Your task to perform on an android device: open a bookmark in the chrome app Image 0: 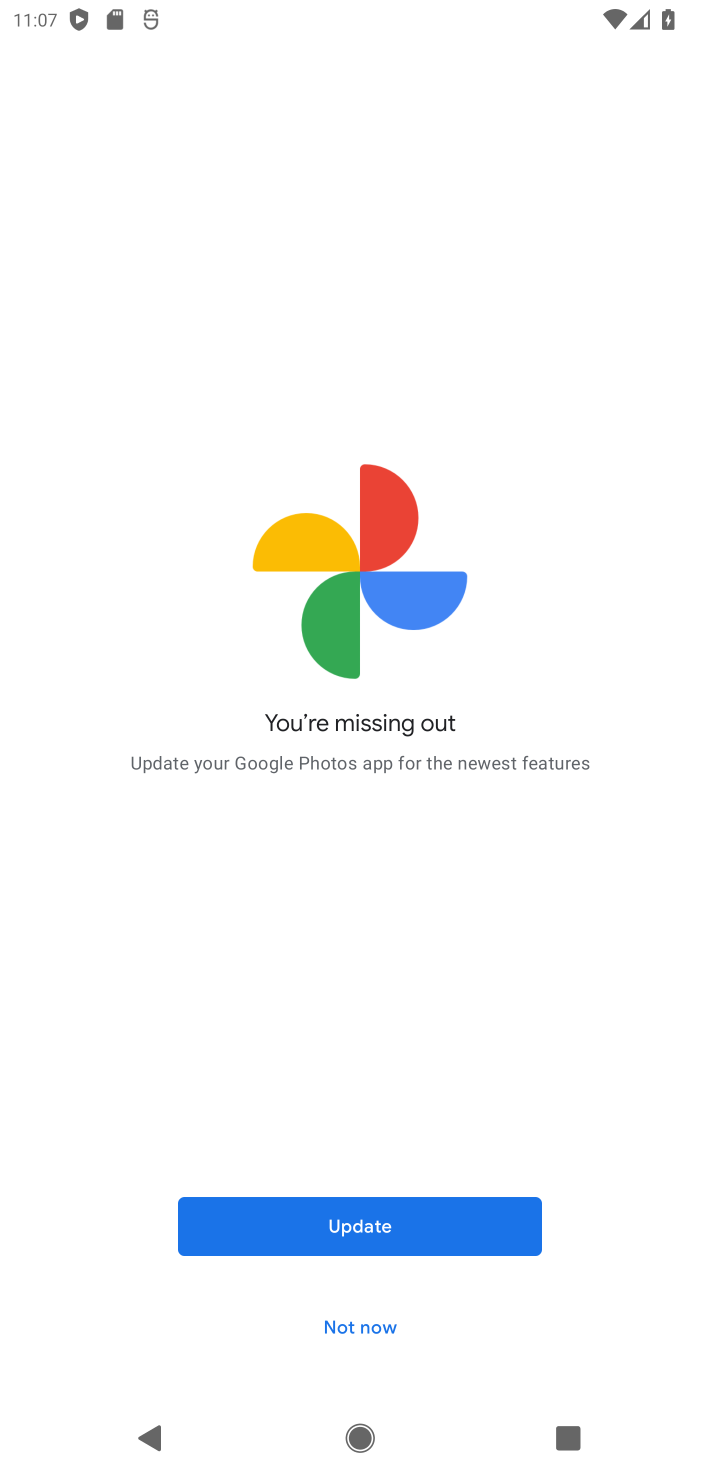
Step 0: press home button
Your task to perform on an android device: open a bookmark in the chrome app Image 1: 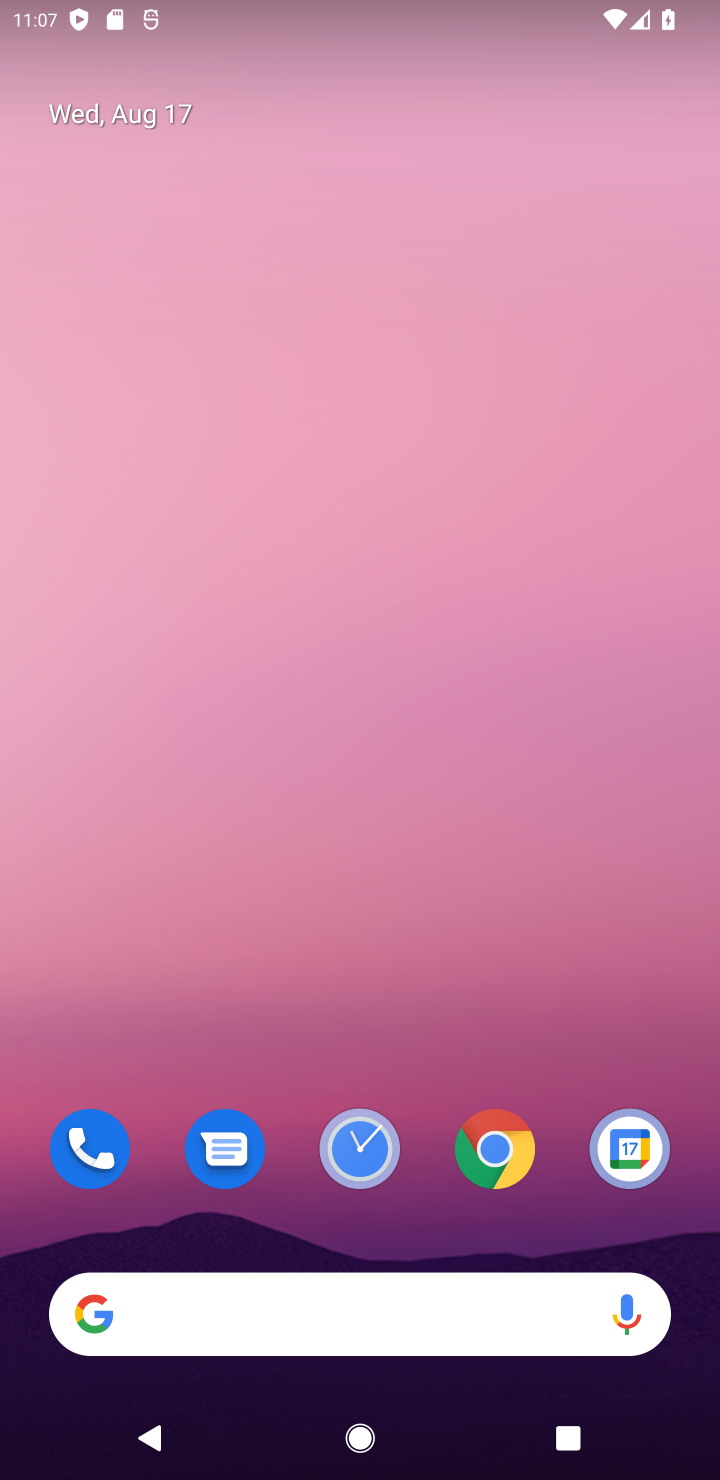
Step 1: drag from (320, 786) to (340, 224)
Your task to perform on an android device: open a bookmark in the chrome app Image 2: 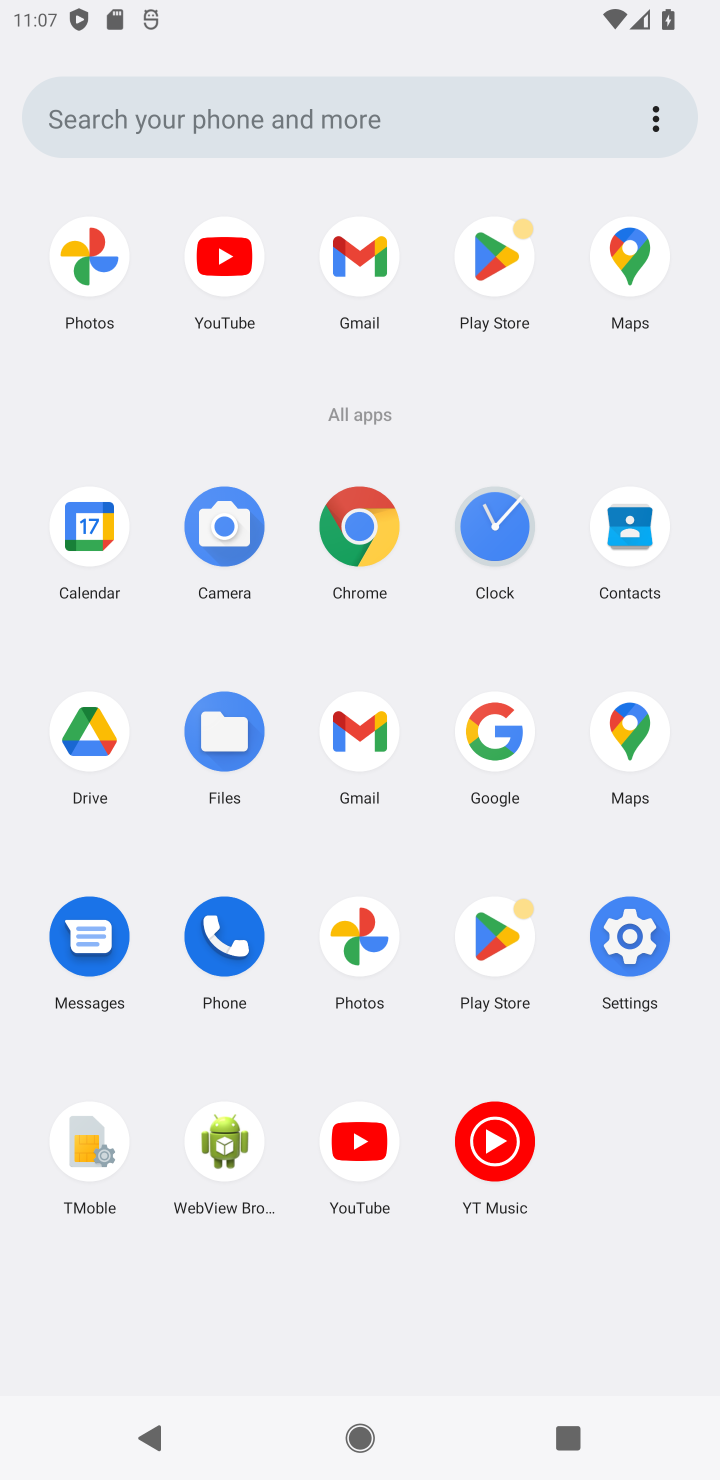
Step 2: click (372, 541)
Your task to perform on an android device: open a bookmark in the chrome app Image 3: 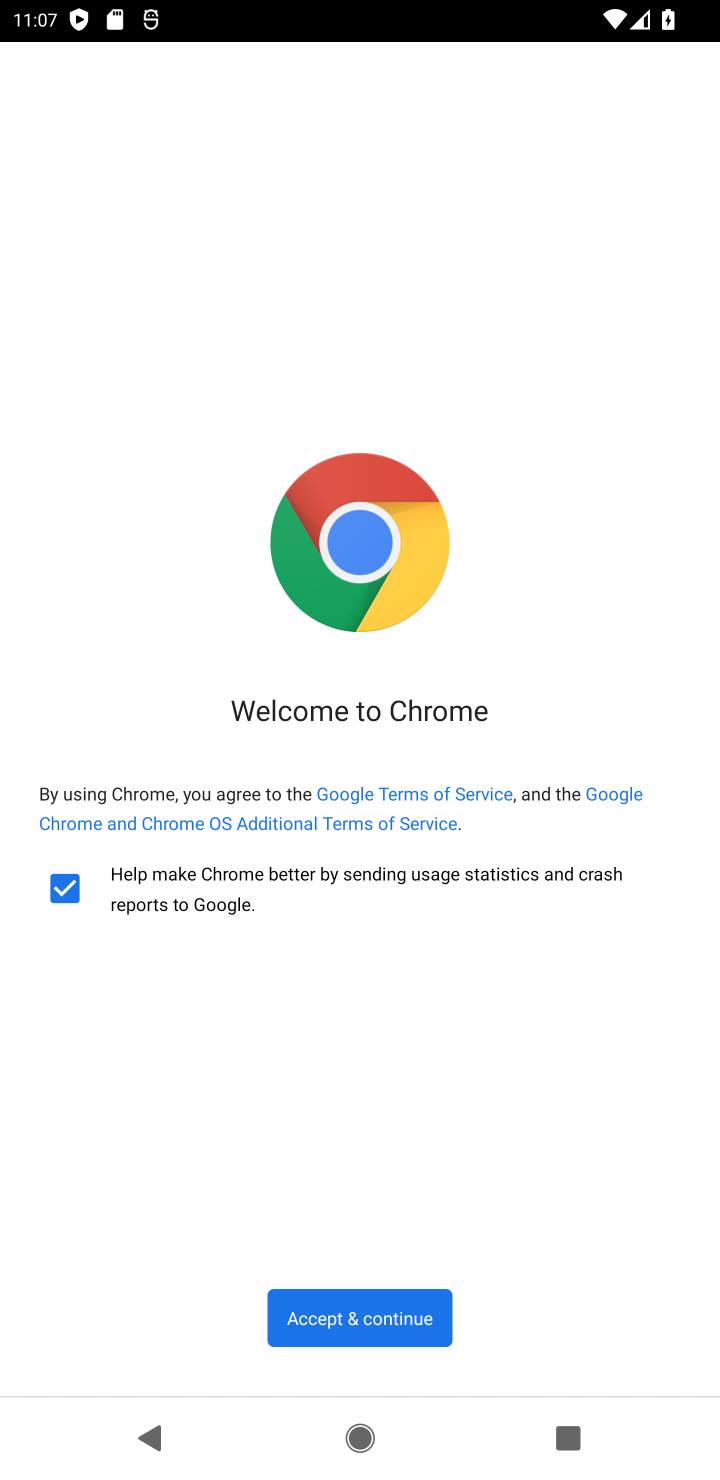
Step 3: click (386, 1319)
Your task to perform on an android device: open a bookmark in the chrome app Image 4: 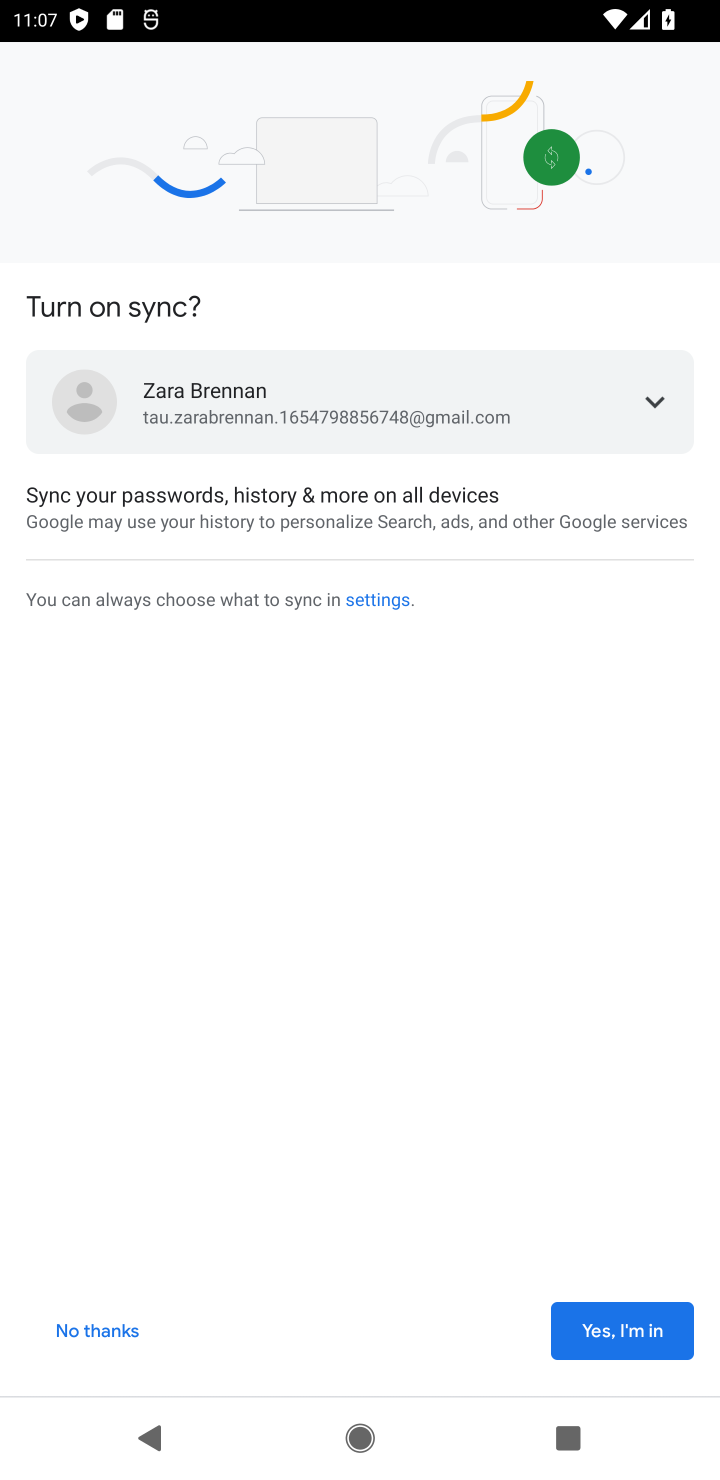
Step 4: click (91, 1340)
Your task to perform on an android device: open a bookmark in the chrome app Image 5: 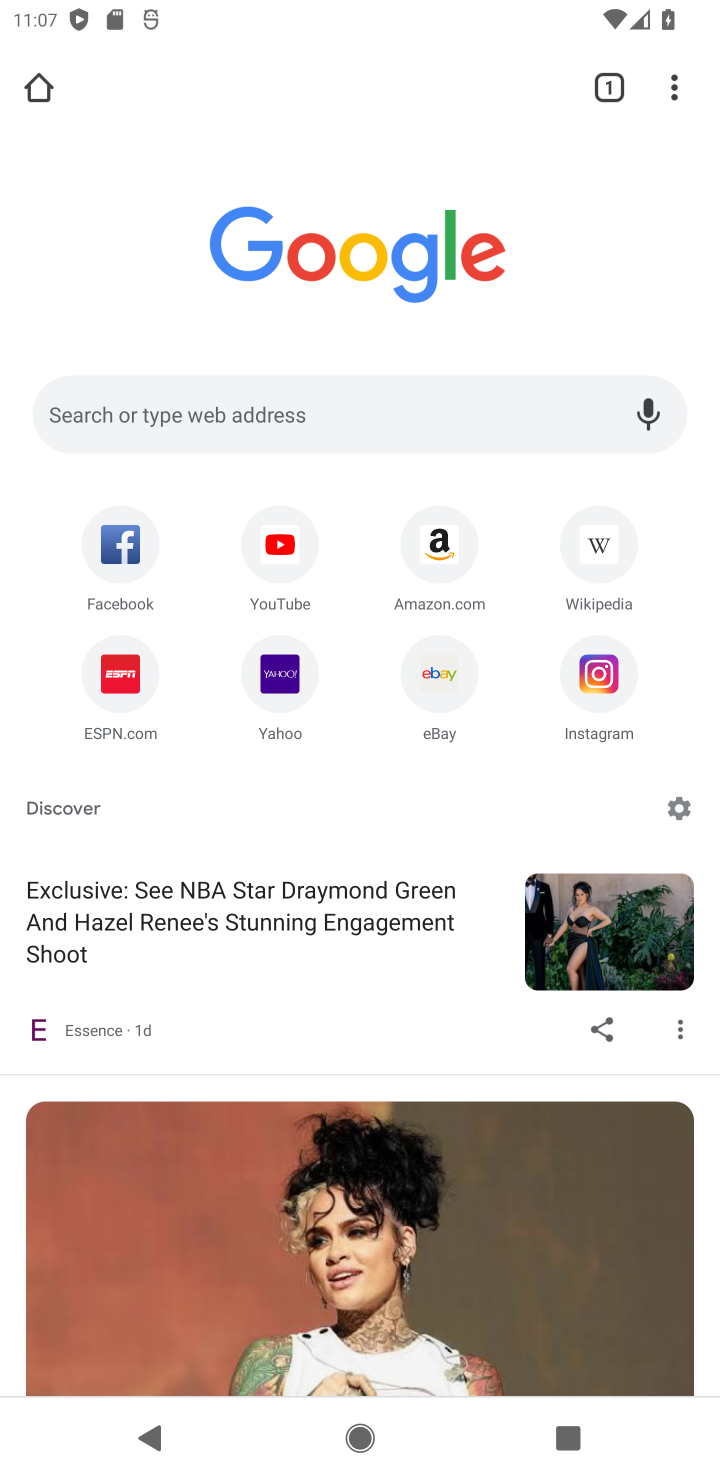
Step 5: drag from (665, 90) to (360, 495)
Your task to perform on an android device: open a bookmark in the chrome app Image 6: 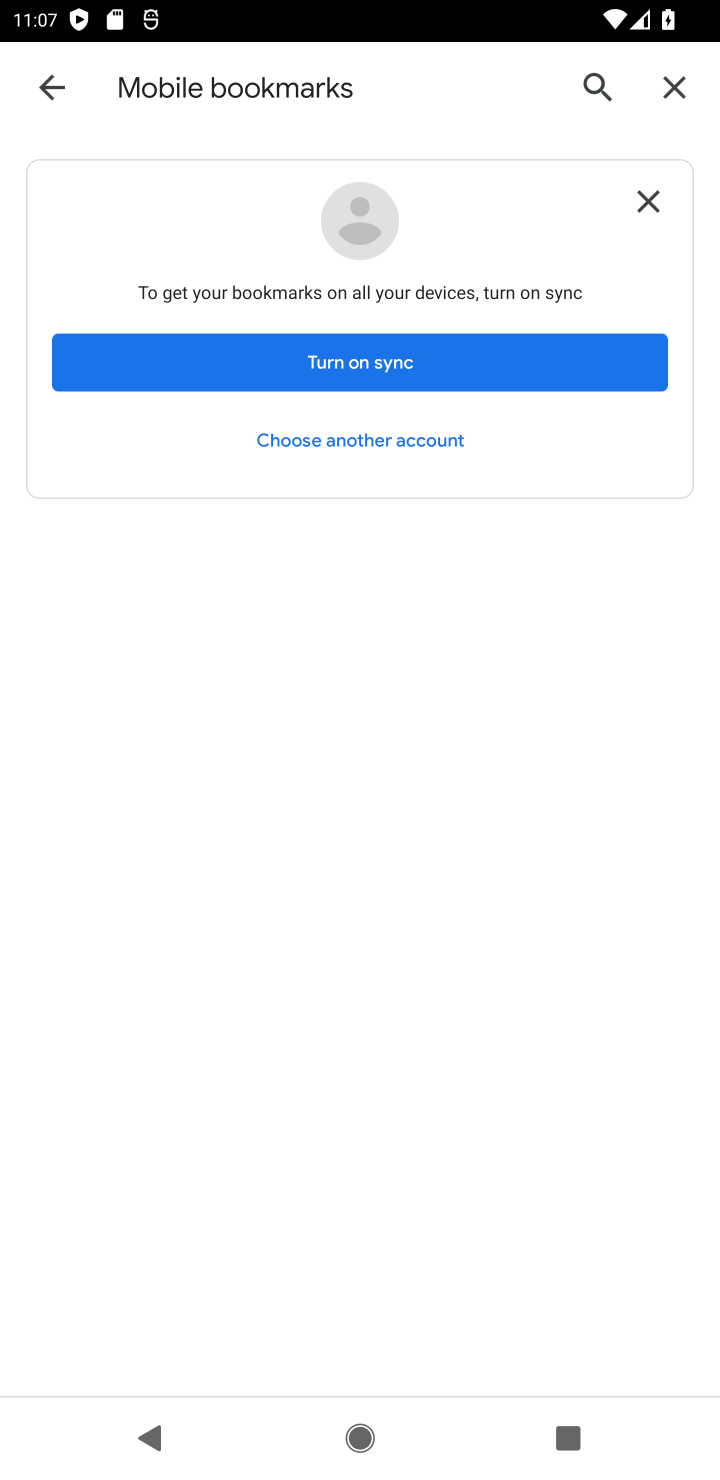
Step 6: click (282, 347)
Your task to perform on an android device: open a bookmark in the chrome app Image 7: 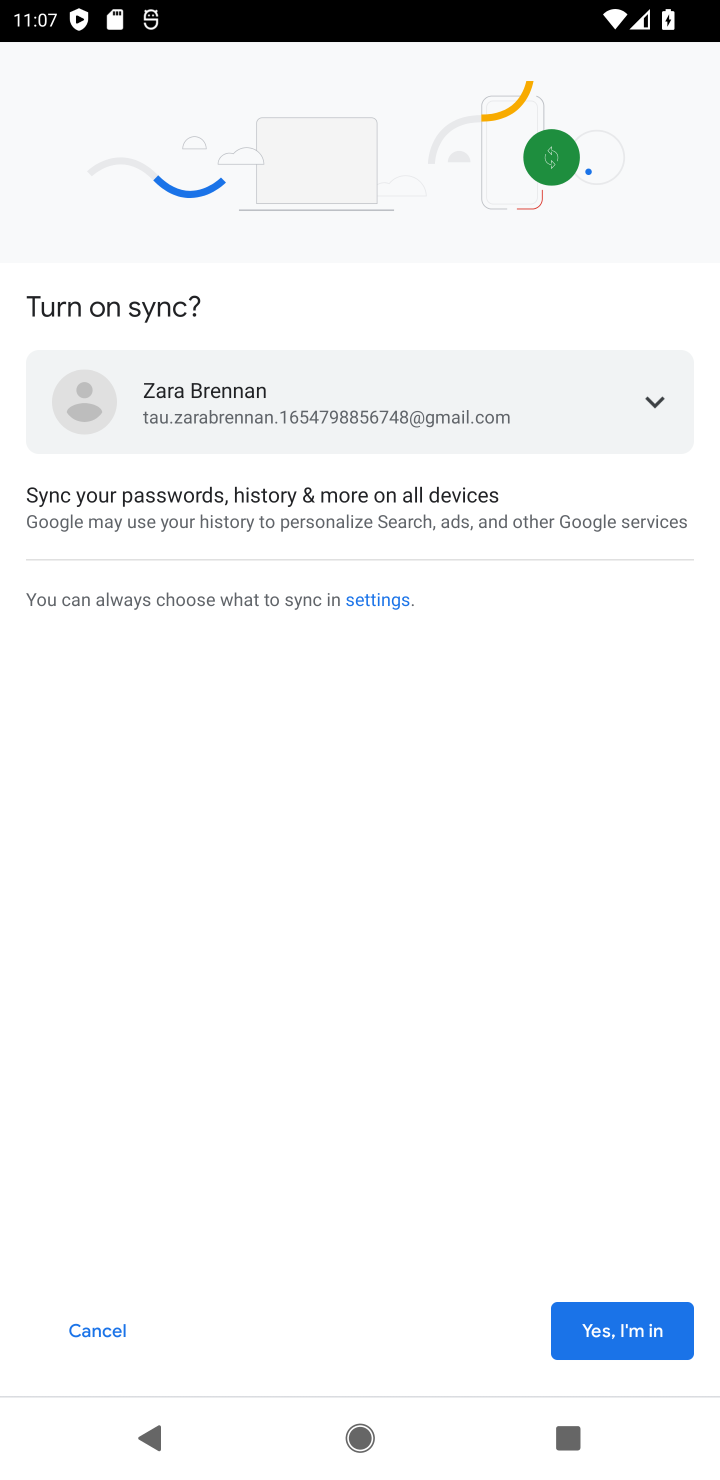
Step 7: click (662, 1348)
Your task to perform on an android device: open a bookmark in the chrome app Image 8: 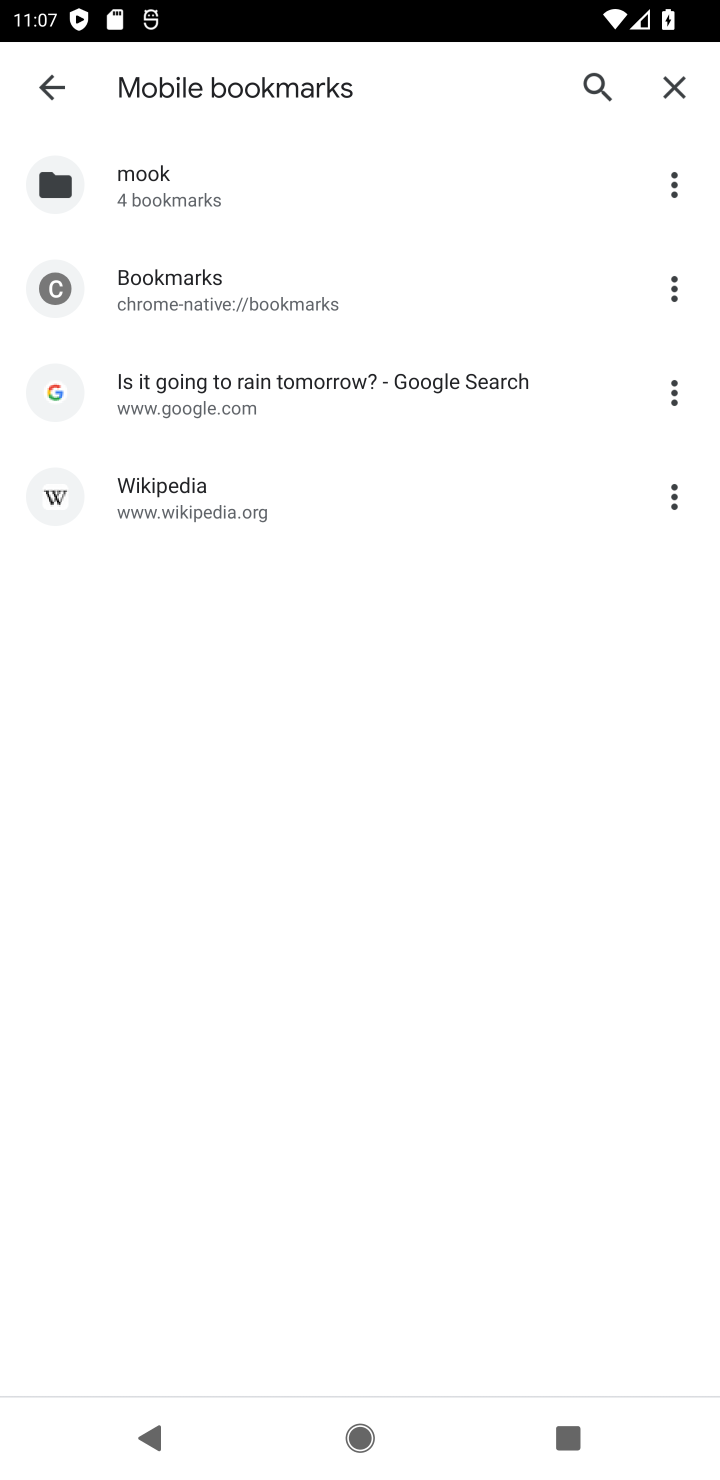
Step 8: task complete